Your task to perform on an android device: Open the calendar app, open the side menu, and click the "Day" option Image 0: 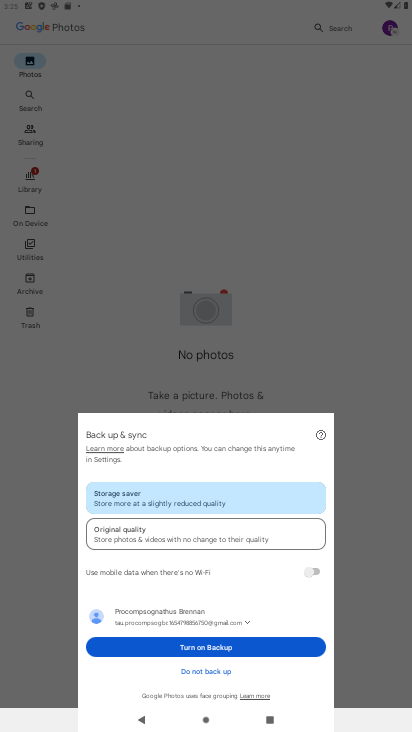
Step 0: press home button
Your task to perform on an android device: Open the calendar app, open the side menu, and click the "Day" option Image 1: 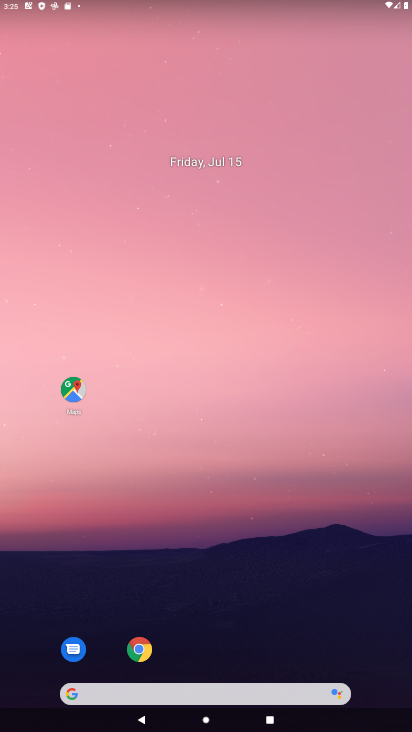
Step 1: drag from (302, 576) to (257, 162)
Your task to perform on an android device: Open the calendar app, open the side menu, and click the "Day" option Image 2: 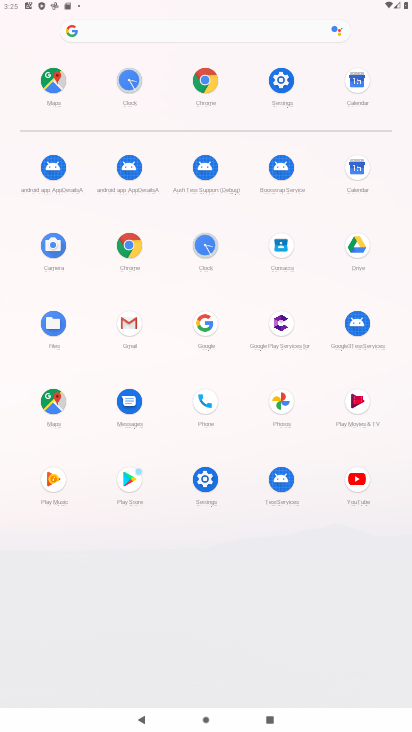
Step 2: click (358, 163)
Your task to perform on an android device: Open the calendar app, open the side menu, and click the "Day" option Image 3: 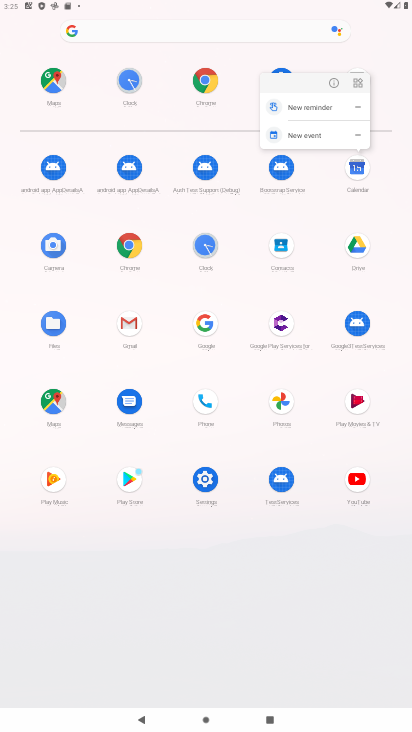
Step 3: click (356, 169)
Your task to perform on an android device: Open the calendar app, open the side menu, and click the "Day" option Image 4: 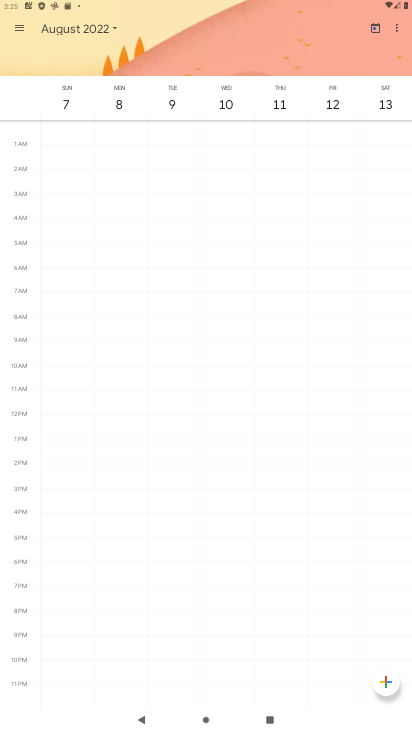
Step 4: click (22, 31)
Your task to perform on an android device: Open the calendar app, open the side menu, and click the "Day" option Image 5: 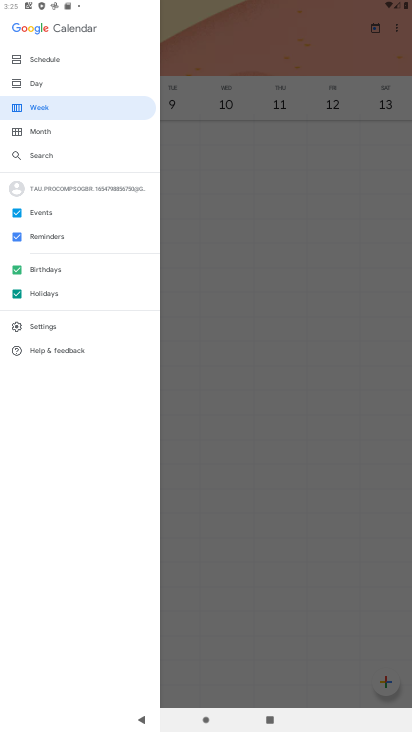
Step 5: click (31, 82)
Your task to perform on an android device: Open the calendar app, open the side menu, and click the "Day" option Image 6: 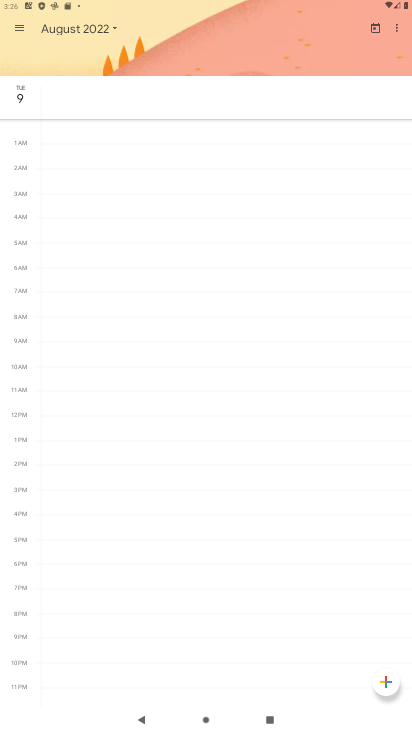
Step 6: click (7, 36)
Your task to perform on an android device: Open the calendar app, open the side menu, and click the "Day" option Image 7: 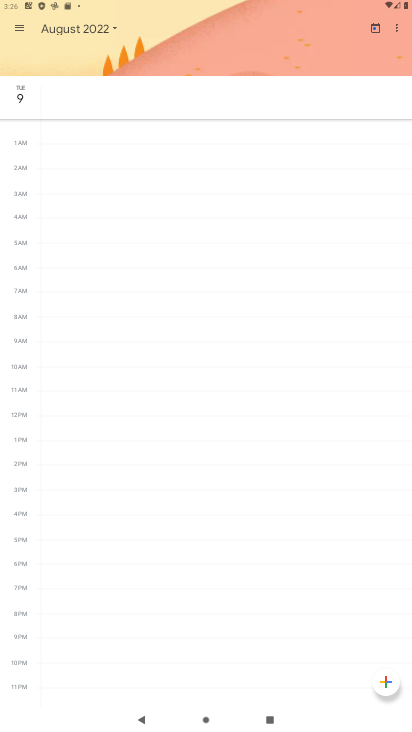
Step 7: click (11, 26)
Your task to perform on an android device: Open the calendar app, open the side menu, and click the "Day" option Image 8: 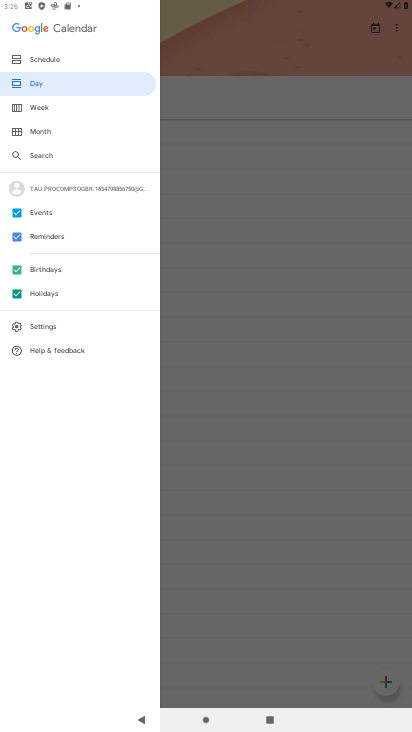
Step 8: click (285, 326)
Your task to perform on an android device: Open the calendar app, open the side menu, and click the "Day" option Image 9: 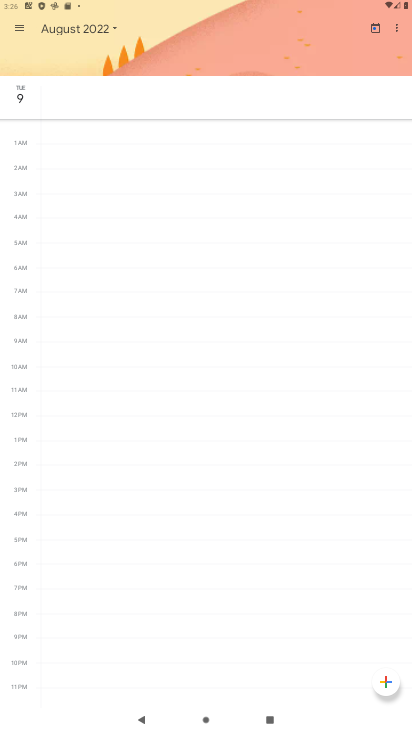
Step 9: click (76, 28)
Your task to perform on an android device: Open the calendar app, open the side menu, and click the "Day" option Image 10: 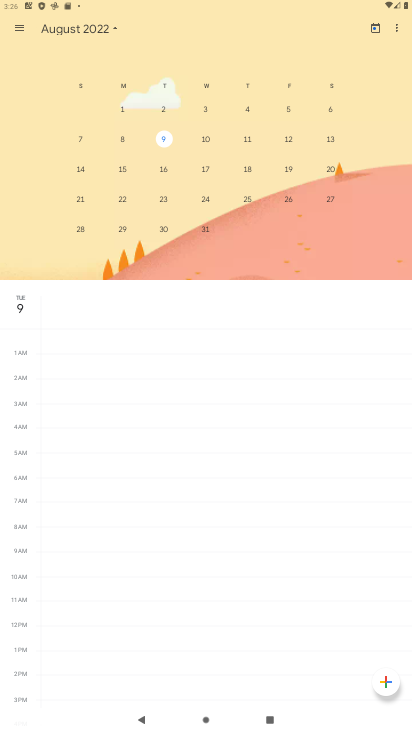
Step 10: click (21, 25)
Your task to perform on an android device: Open the calendar app, open the side menu, and click the "Day" option Image 11: 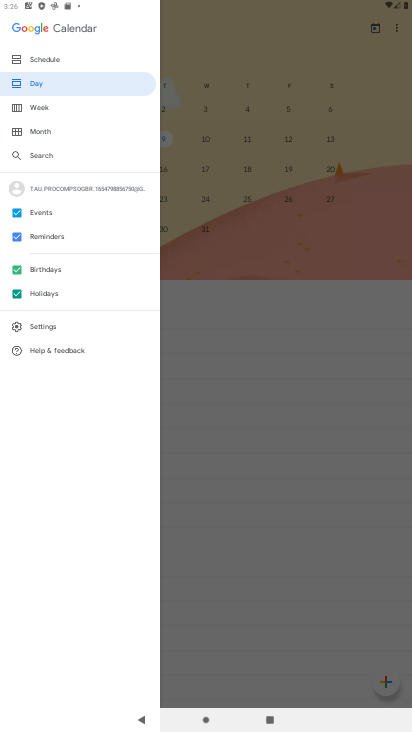
Step 11: click (35, 82)
Your task to perform on an android device: Open the calendar app, open the side menu, and click the "Day" option Image 12: 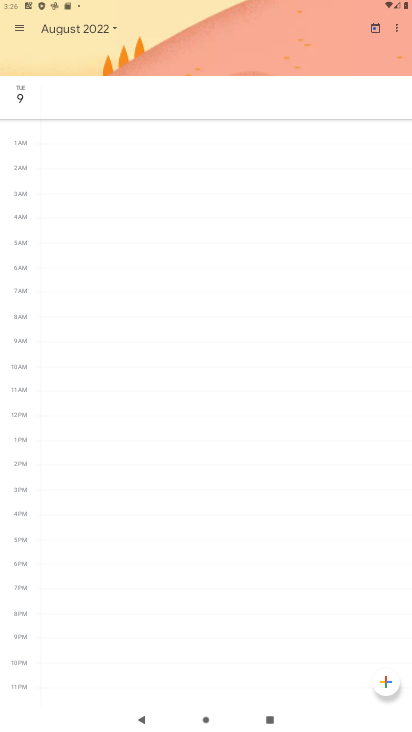
Step 12: task complete